Your task to perform on an android device: turn smart compose on in the gmail app Image 0: 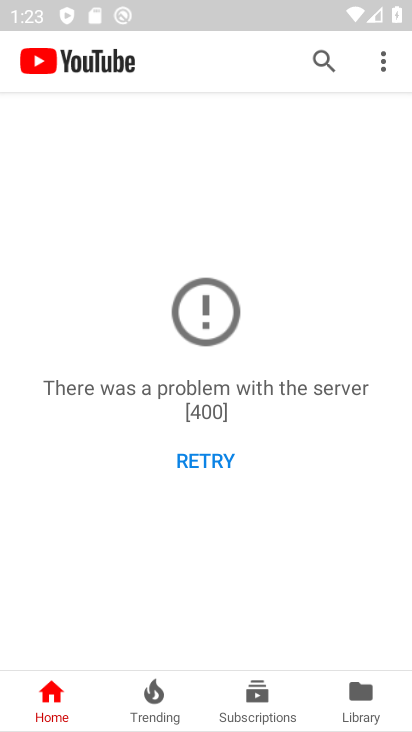
Step 0: press home button
Your task to perform on an android device: turn smart compose on in the gmail app Image 1: 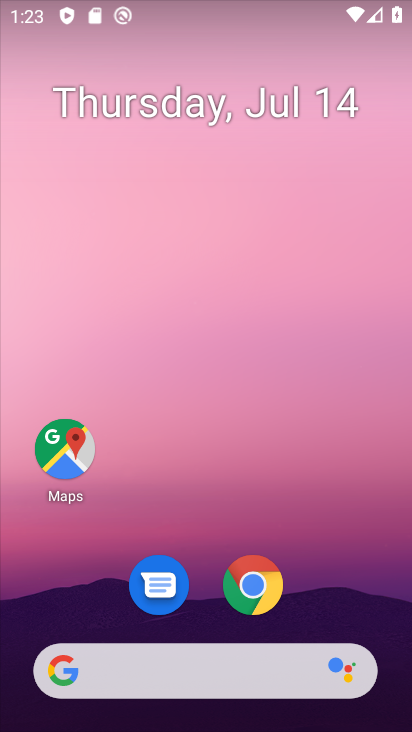
Step 1: drag from (336, 581) to (314, 85)
Your task to perform on an android device: turn smart compose on in the gmail app Image 2: 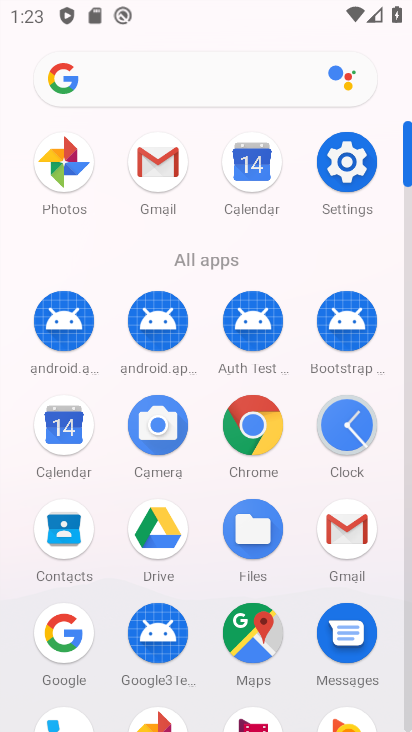
Step 2: click (157, 165)
Your task to perform on an android device: turn smart compose on in the gmail app Image 3: 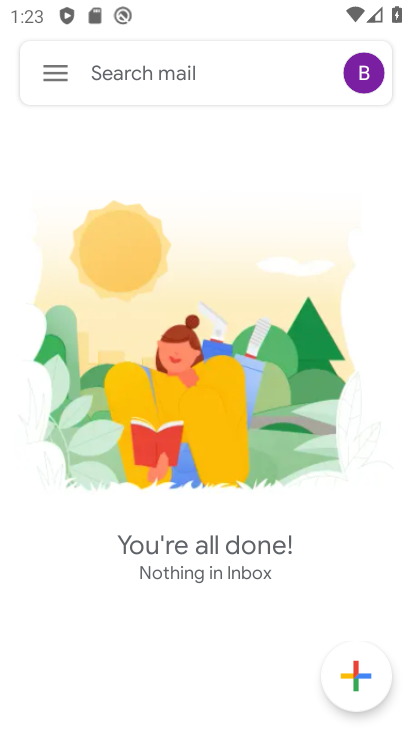
Step 3: click (53, 67)
Your task to perform on an android device: turn smart compose on in the gmail app Image 4: 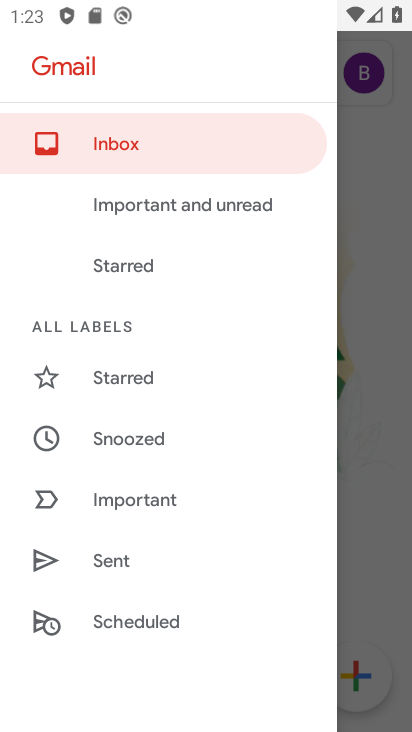
Step 4: drag from (180, 457) to (174, 5)
Your task to perform on an android device: turn smart compose on in the gmail app Image 5: 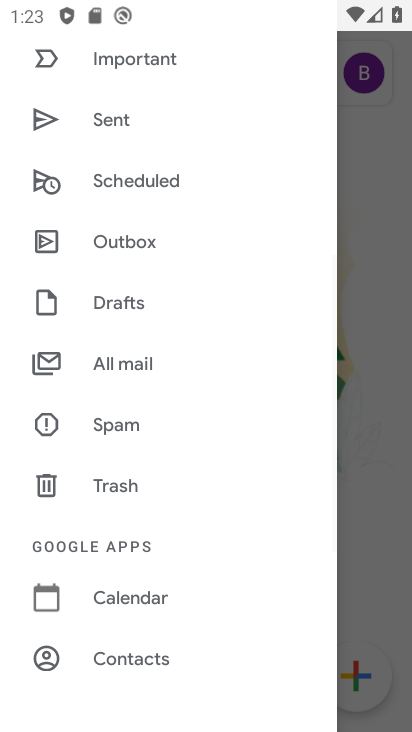
Step 5: drag from (186, 503) to (208, 179)
Your task to perform on an android device: turn smart compose on in the gmail app Image 6: 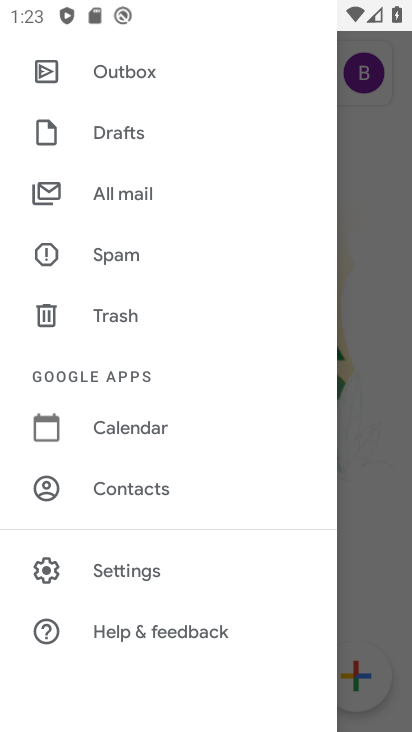
Step 6: click (115, 570)
Your task to perform on an android device: turn smart compose on in the gmail app Image 7: 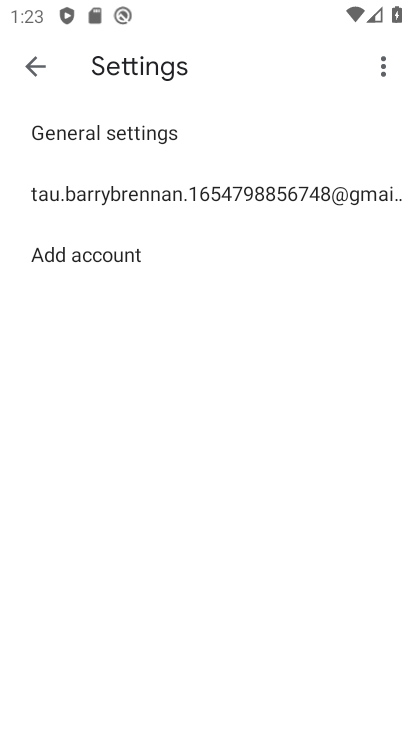
Step 7: click (278, 189)
Your task to perform on an android device: turn smart compose on in the gmail app Image 8: 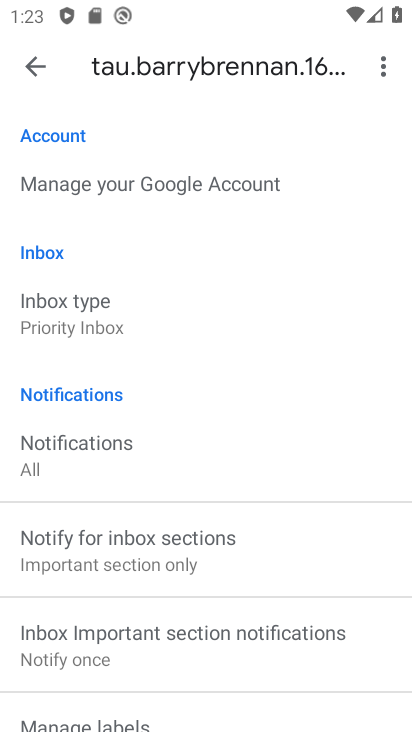
Step 8: task complete